Your task to perform on an android device: Open accessibility settings Image 0: 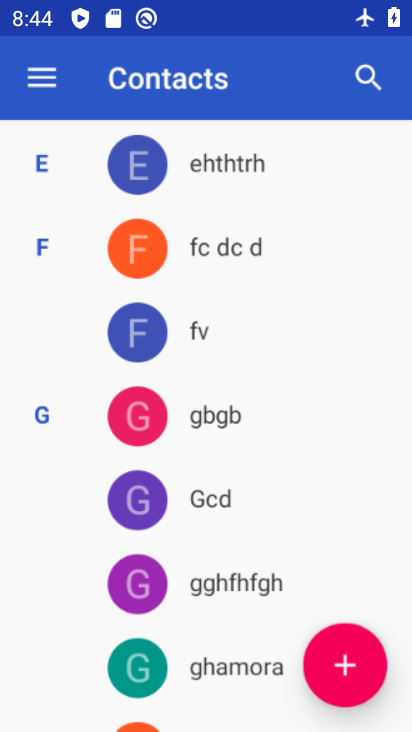
Step 0: drag from (315, 570) to (350, 110)
Your task to perform on an android device: Open accessibility settings Image 1: 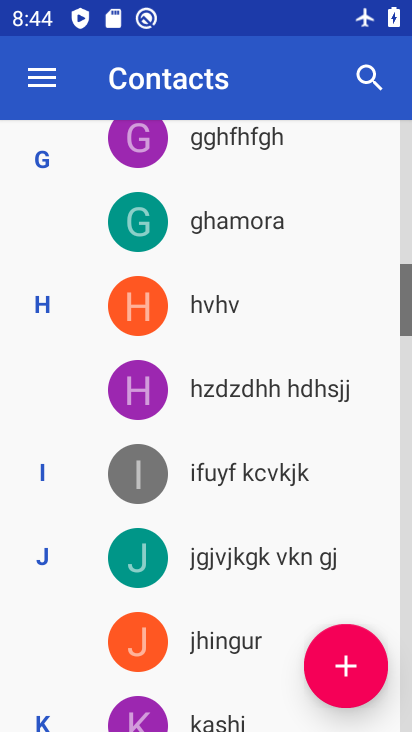
Step 1: press home button
Your task to perform on an android device: Open accessibility settings Image 2: 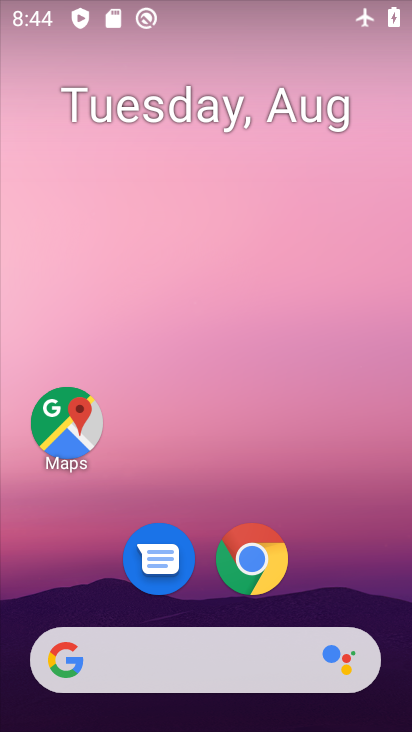
Step 2: drag from (316, 561) to (365, 47)
Your task to perform on an android device: Open accessibility settings Image 3: 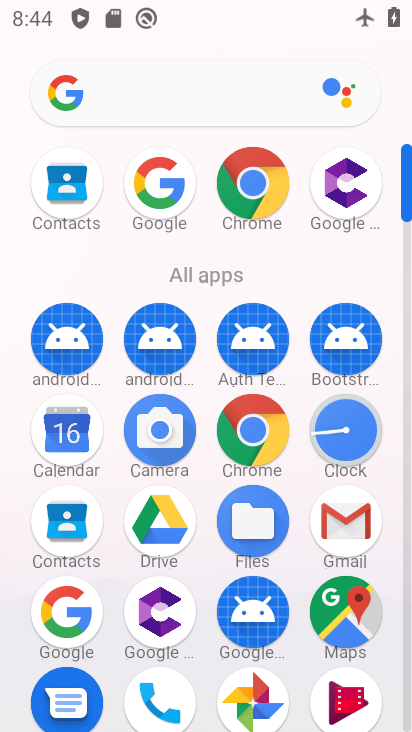
Step 3: drag from (197, 575) to (251, 132)
Your task to perform on an android device: Open accessibility settings Image 4: 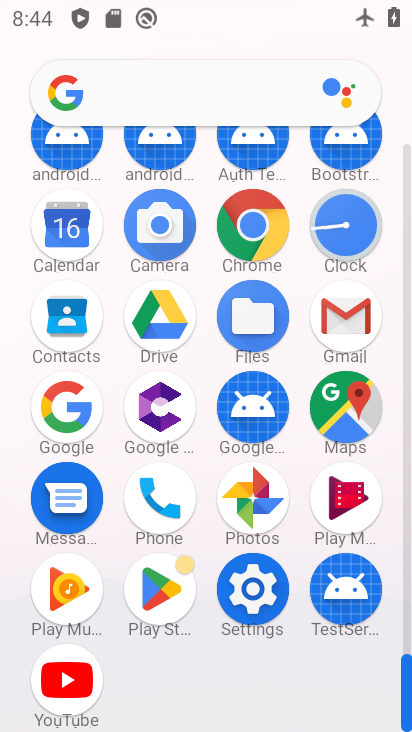
Step 4: click (249, 590)
Your task to perform on an android device: Open accessibility settings Image 5: 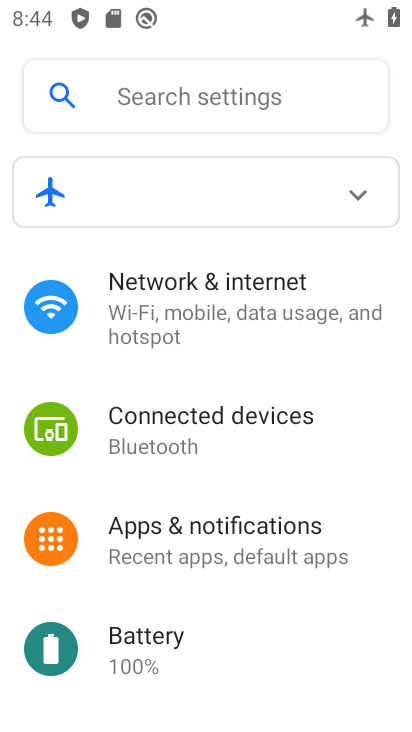
Step 5: drag from (182, 659) to (242, 173)
Your task to perform on an android device: Open accessibility settings Image 6: 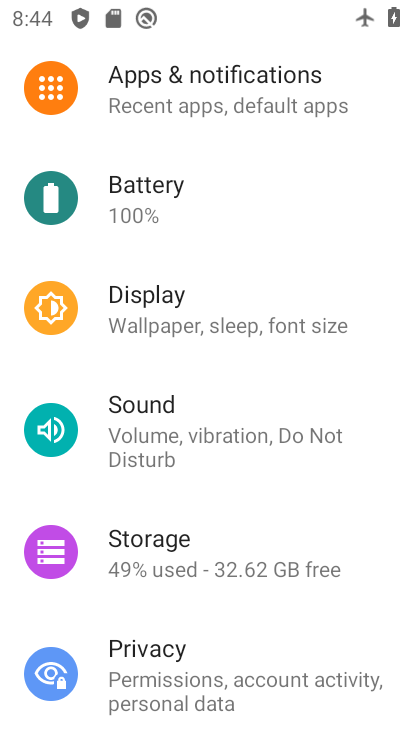
Step 6: drag from (261, 565) to (276, 138)
Your task to perform on an android device: Open accessibility settings Image 7: 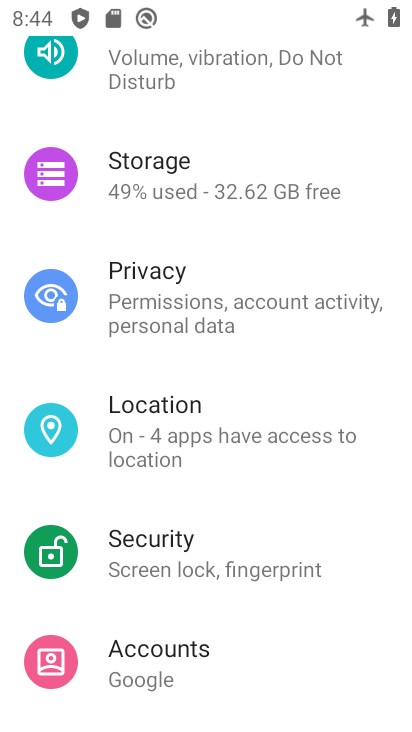
Step 7: drag from (200, 585) to (258, 110)
Your task to perform on an android device: Open accessibility settings Image 8: 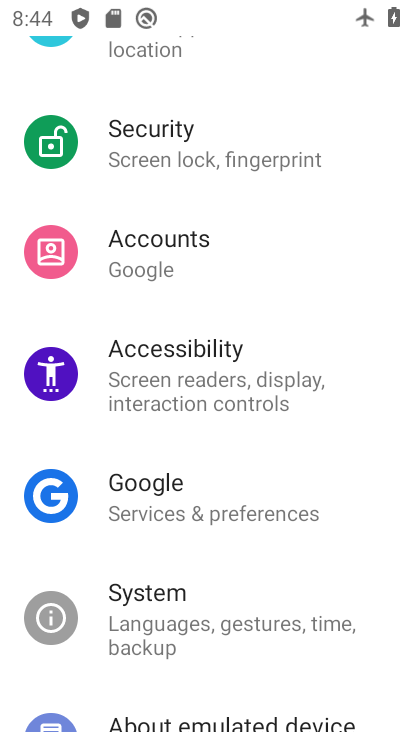
Step 8: click (182, 374)
Your task to perform on an android device: Open accessibility settings Image 9: 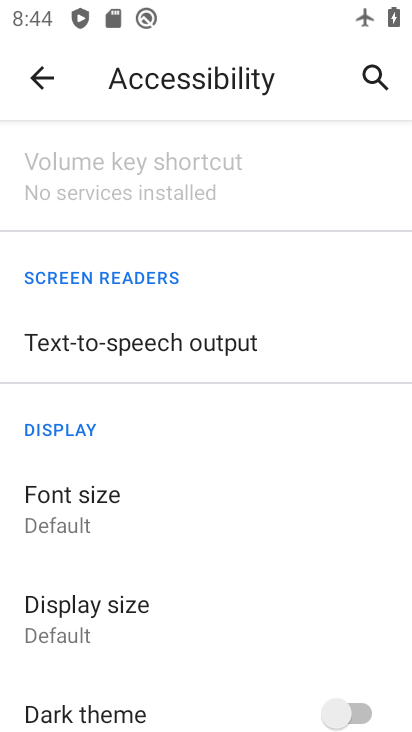
Step 9: task complete